Your task to perform on an android device: Go to Wikipedia Image 0: 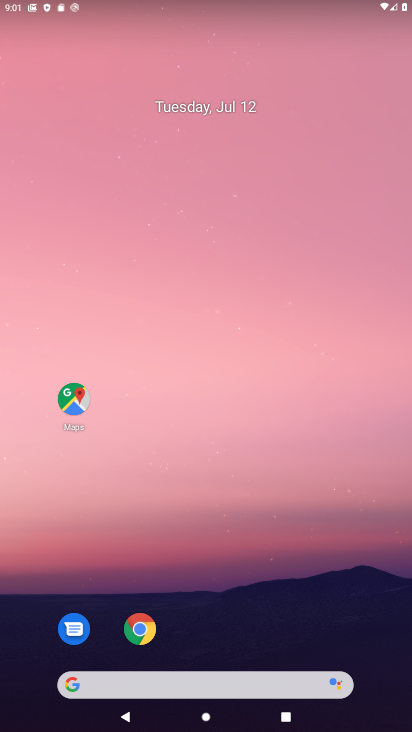
Step 0: click (129, 635)
Your task to perform on an android device: Go to Wikipedia Image 1: 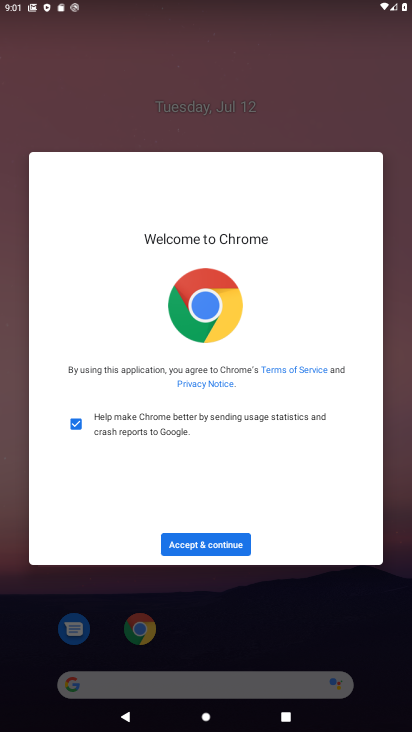
Step 1: click (239, 547)
Your task to perform on an android device: Go to Wikipedia Image 2: 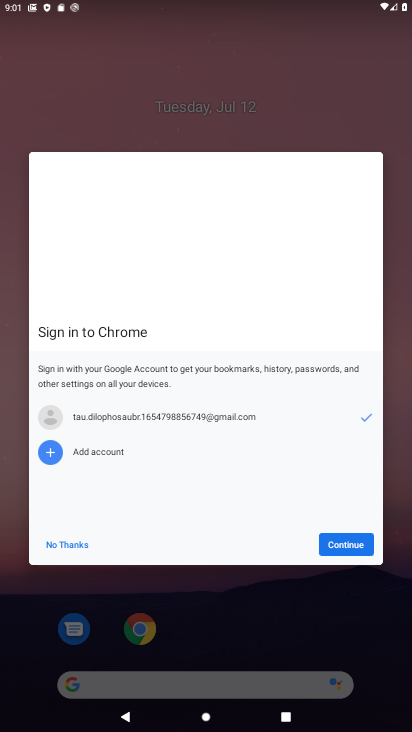
Step 2: click (357, 539)
Your task to perform on an android device: Go to Wikipedia Image 3: 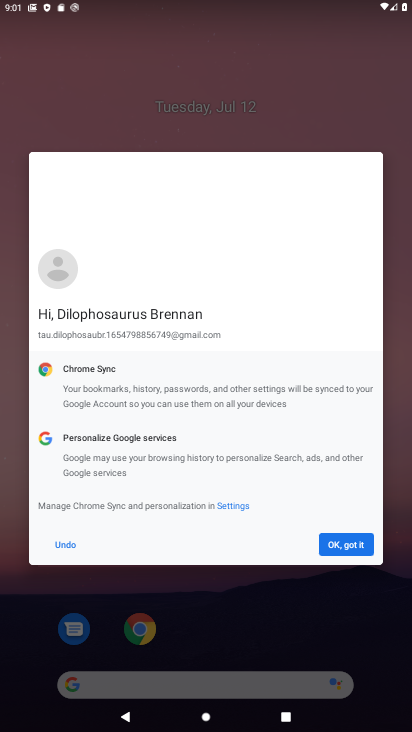
Step 3: click (357, 539)
Your task to perform on an android device: Go to Wikipedia Image 4: 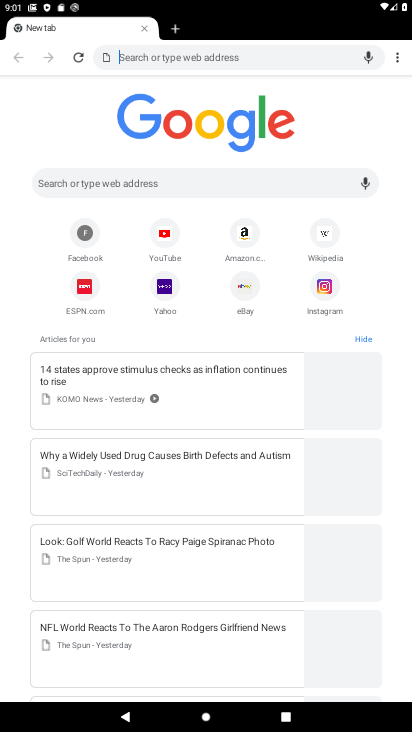
Step 4: click (320, 236)
Your task to perform on an android device: Go to Wikipedia Image 5: 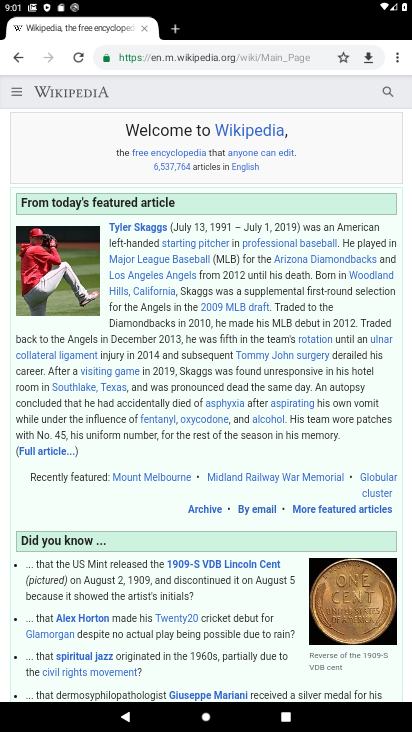
Step 5: task complete